Your task to perform on an android device: Do I have any events tomorrow? Image 0: 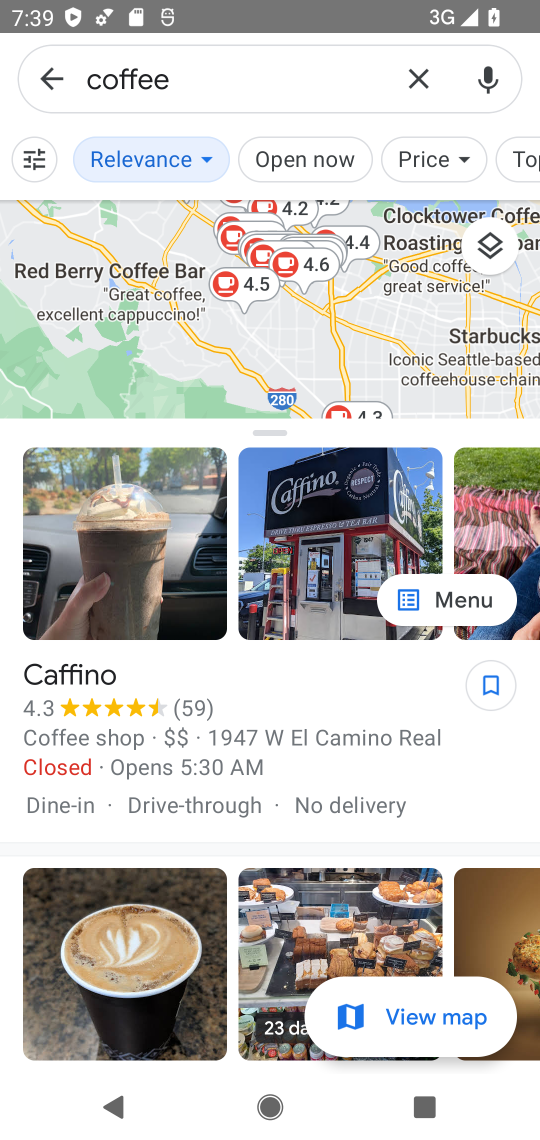
Step 0: press home button
Your task to perform on an android device: Do I have any events tomorrow? Image 1: 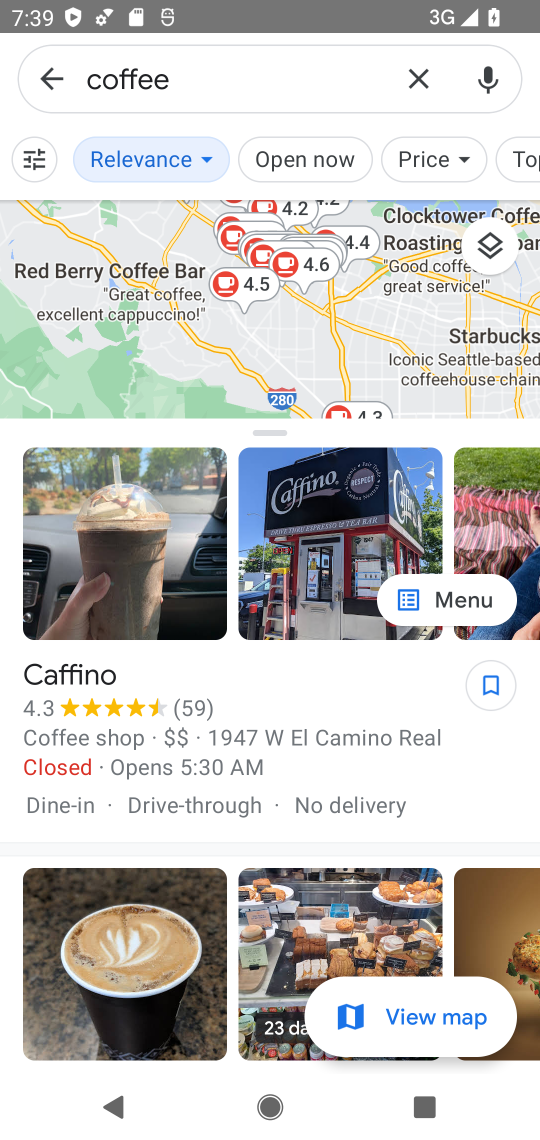
Step 1: press home button
Your task to perform on an android device: Do I have any events tomorrow? Image 2: 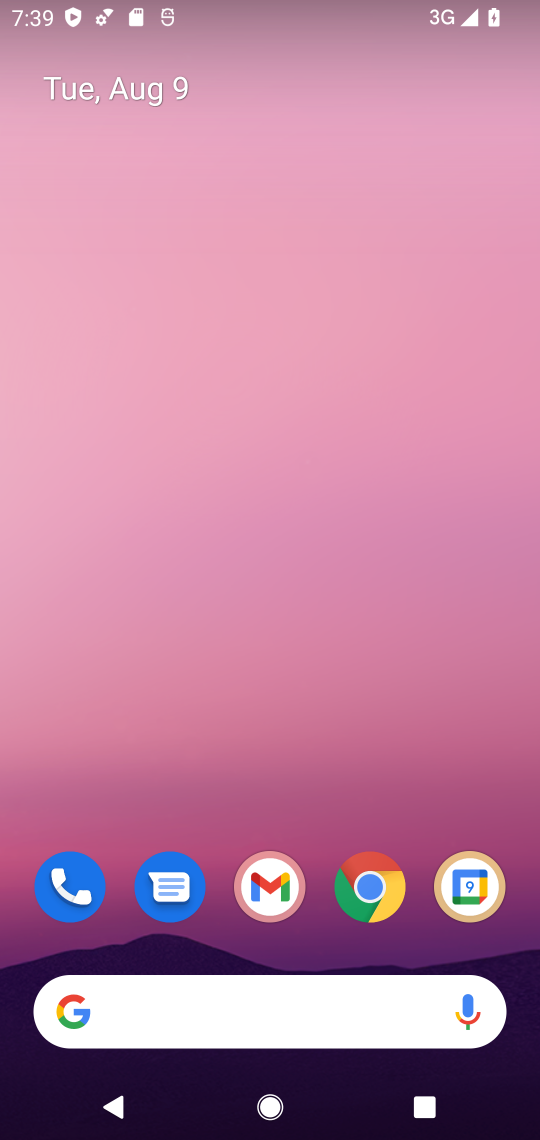
Step 2: drag from (314, 802) to (342, 26)
Your task to perform on an android device: Do I have any events tomorrow? Image 3: 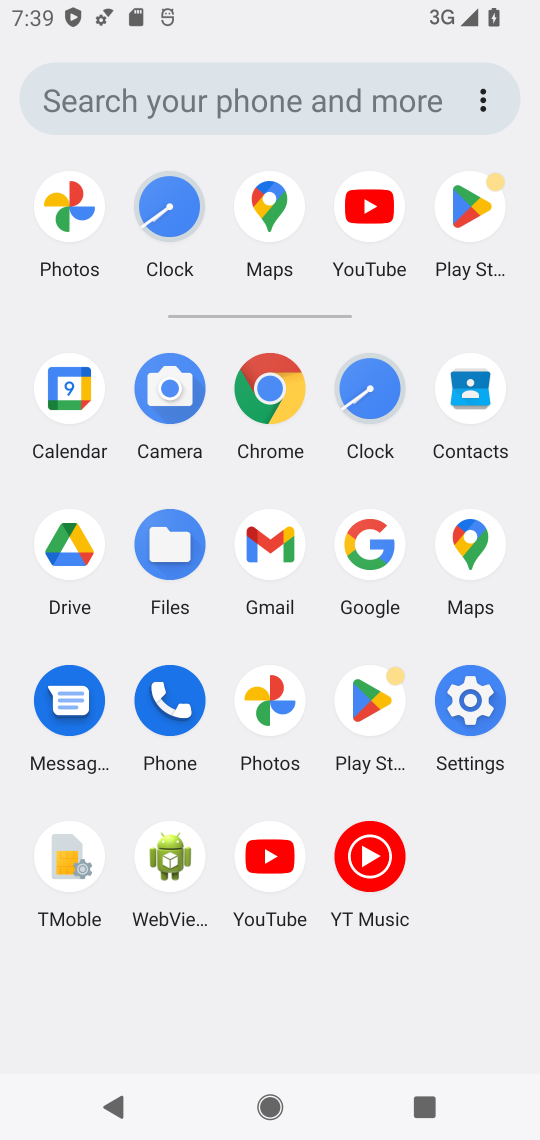
Step 3: click (73, 381)
Your task to perform on an android device: Do I have any events tomorrow? Image 4: 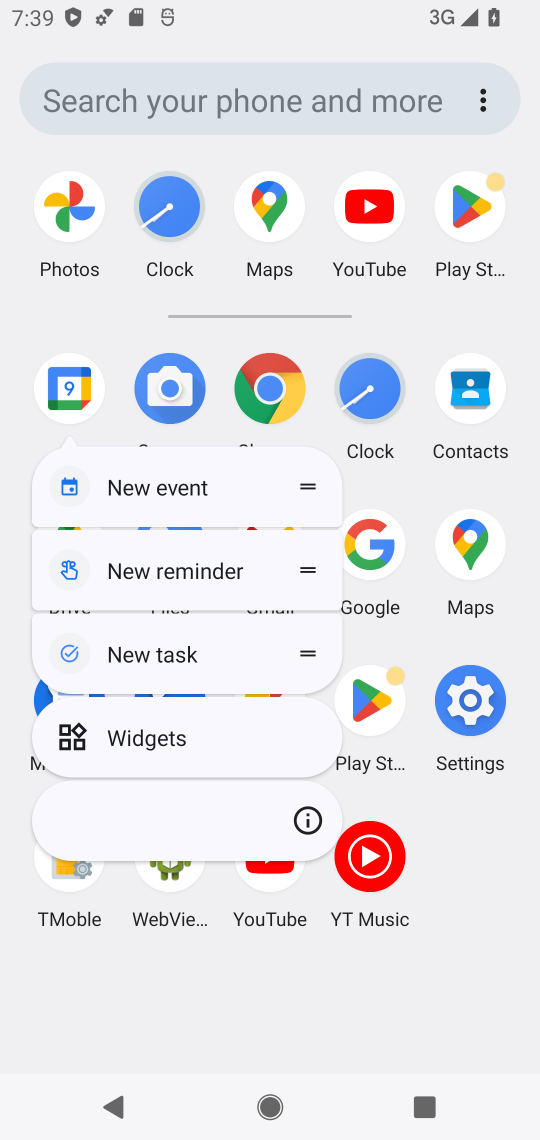
Step 4: click (73, 385)
Your task to perform on an android device: Do I have any events tomorrow? Image 5: 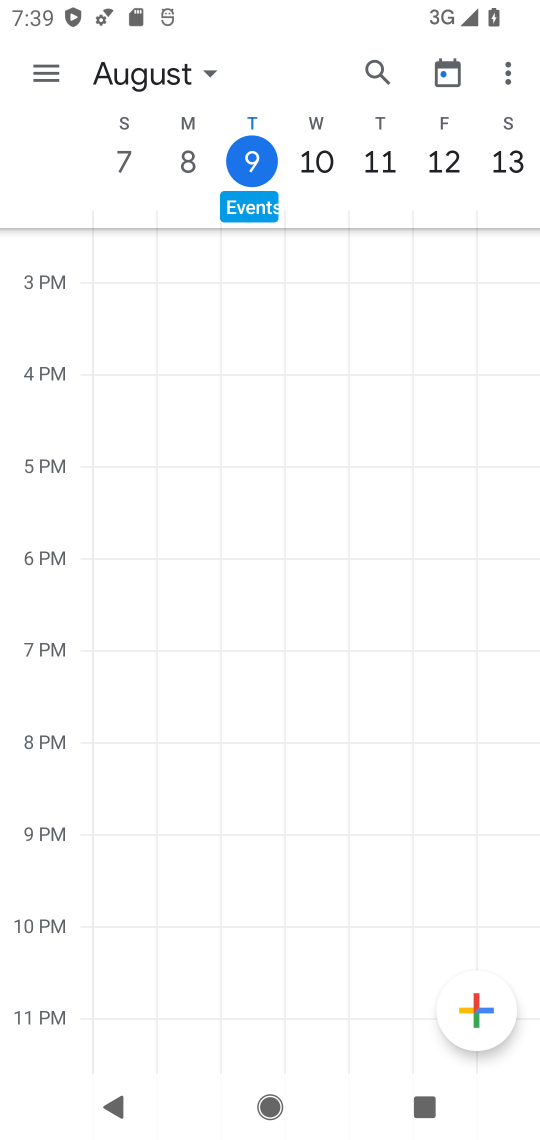
Step 5: task complete